Your task to perform on an android device: set default search engine in the chrome app Image 0: 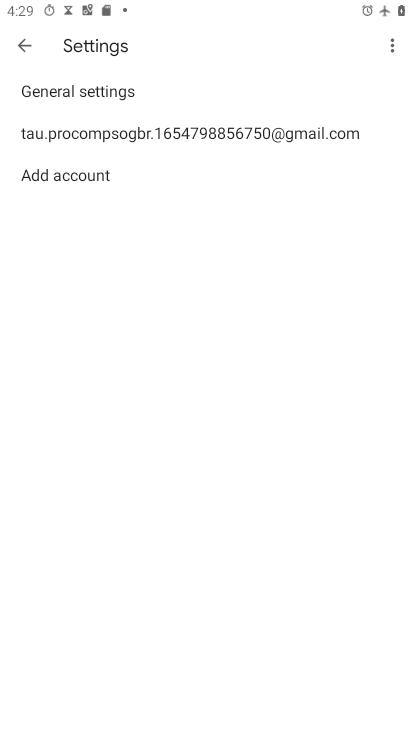
Step 0: press home button
Your task to perform on an android device: set default search engine in the chrome app Image 1: 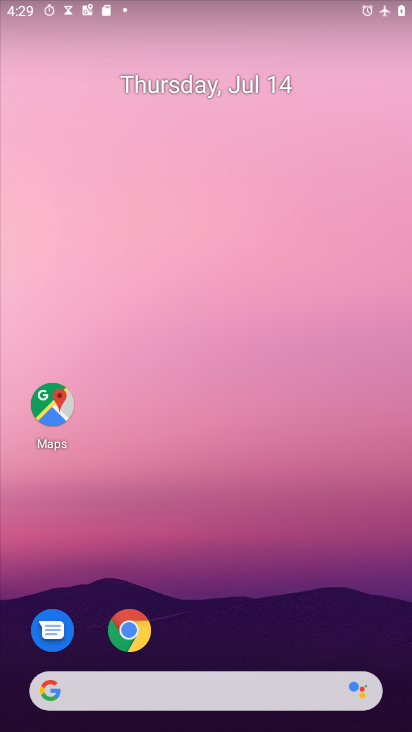
Step 1: click (122, 633)
Your task to perform on an android device: set default search engine in the chrome app Image 2: 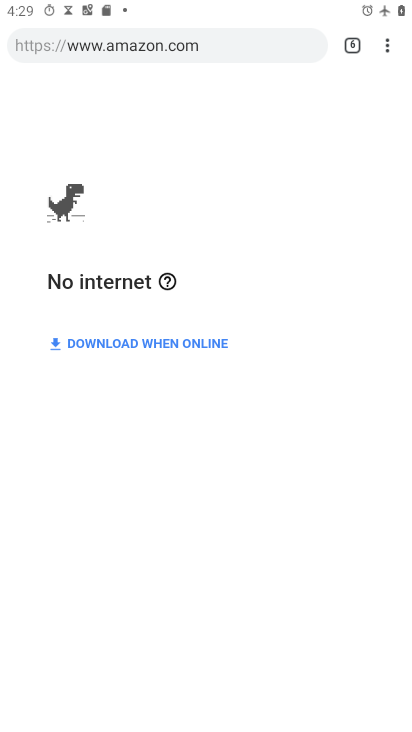
Step 2: click (387, 49)
Your task to perform on an android device: set default search engine in the chrome app Image 3: 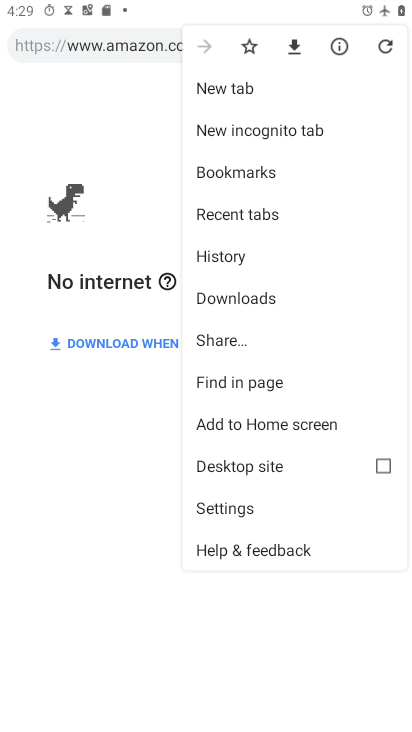
Step 3: click (227, 505)
Your task to perform on an android device: set default search engine in the chrome app Image 4: 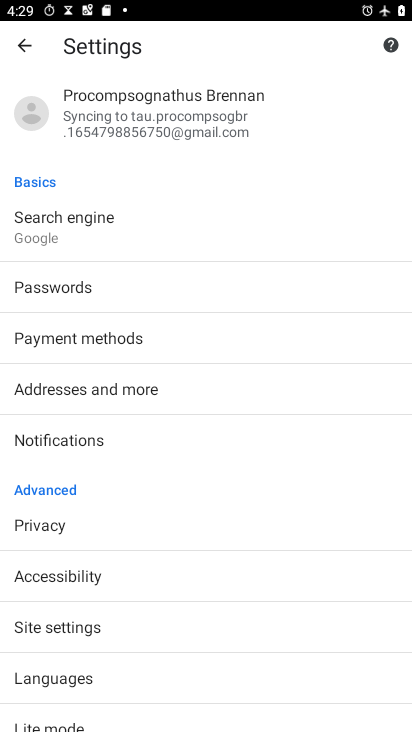
Step 4: click (38, 234)
Your task to perform on an android device: set default search engine in the chrome app Image 5: 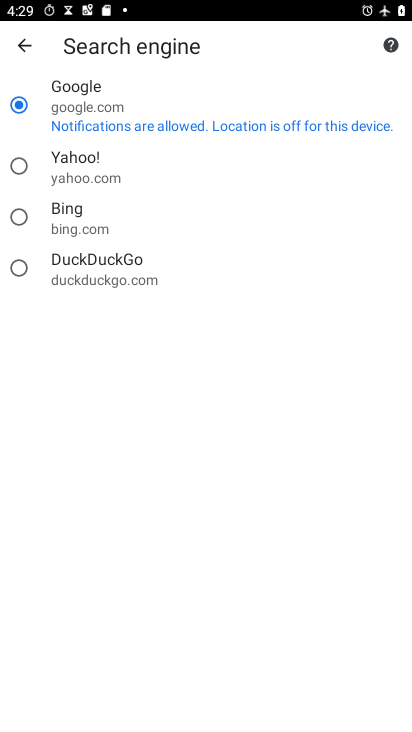
Step 5: click (20, 165)
Your task to perform on an android device: set default search engine in the chrome app Image 6: 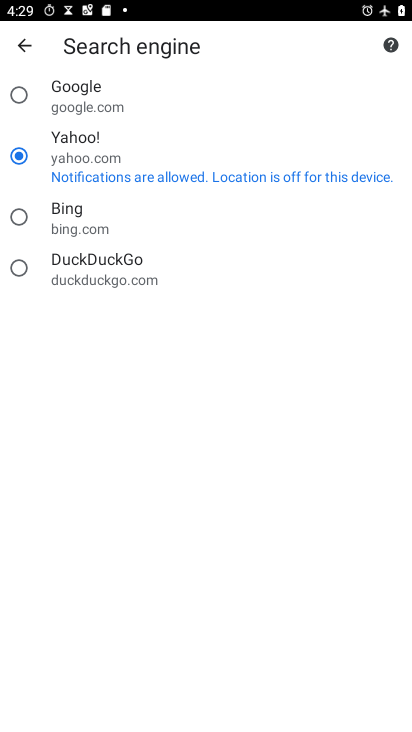
Step 6: task complete